Your task to perform on an android device: change the upload size in google photos Image 0: 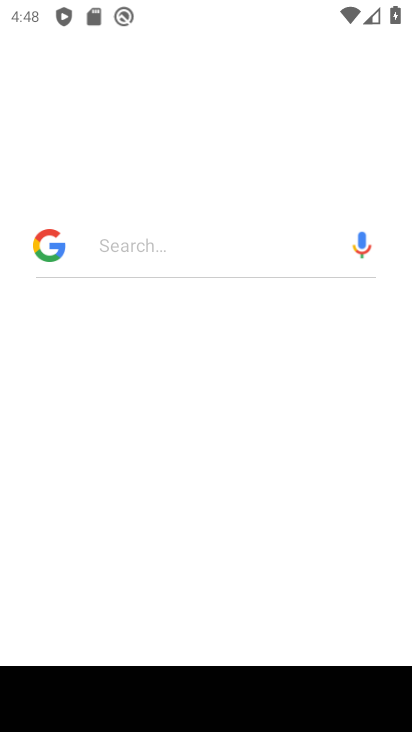
Step 0: drag from (246, 41) to (244, 567)
Your task to perform on an android device: change the upload size in google photos Image 1: 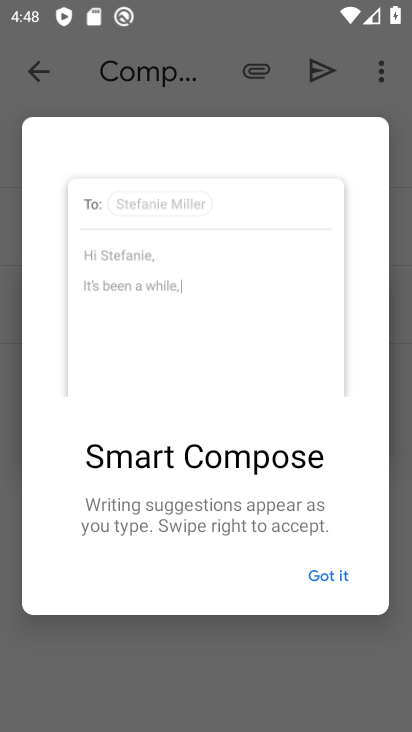
Step 1: press home button
Your task to perform on an android device: change the upload size in google photos Image 2: 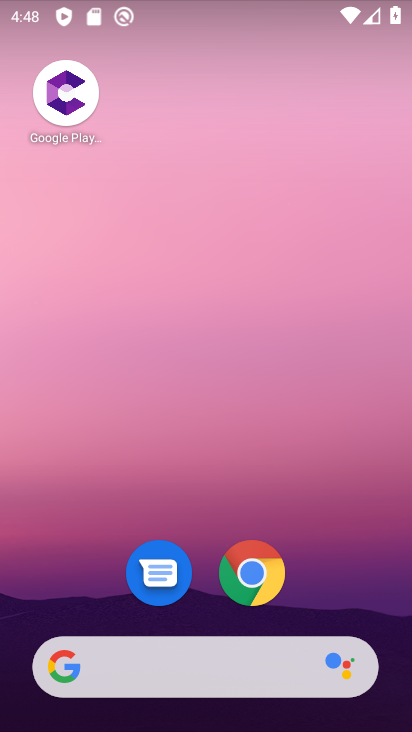
Step 2: drag from (323, 458) to (310, 96)
Your task to perform on an android device: change the upload size in google photos Image 3: 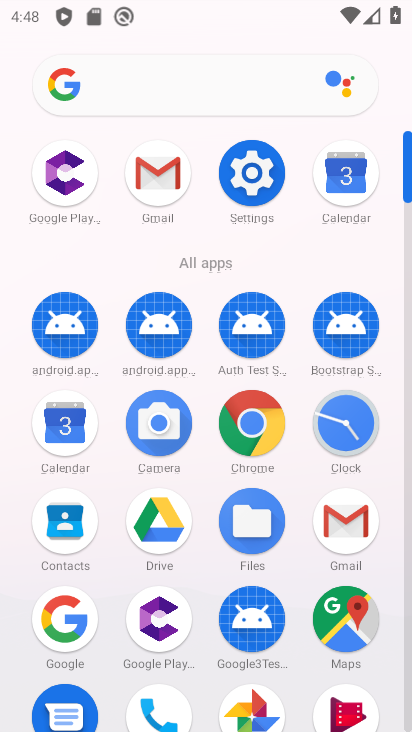
Step 3: click (252, 699)
Your task to perform on an android device: change the upload size in google photos Image 4: 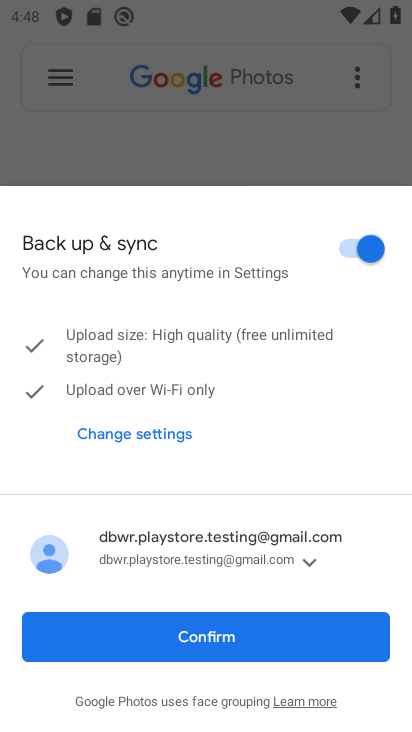
Step 4: click (280, 643)
Your task to perform on an android device: change the upload size in google photos Image 5: 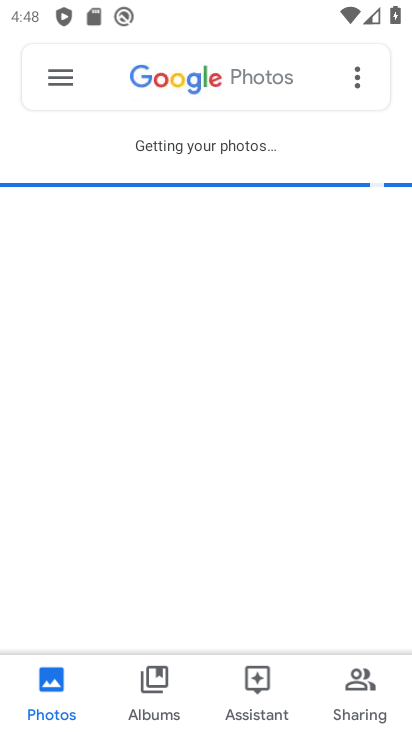
Step 5: click (56, 61)
Your task to perform on an android device: change the upload size in google photos Image 6: 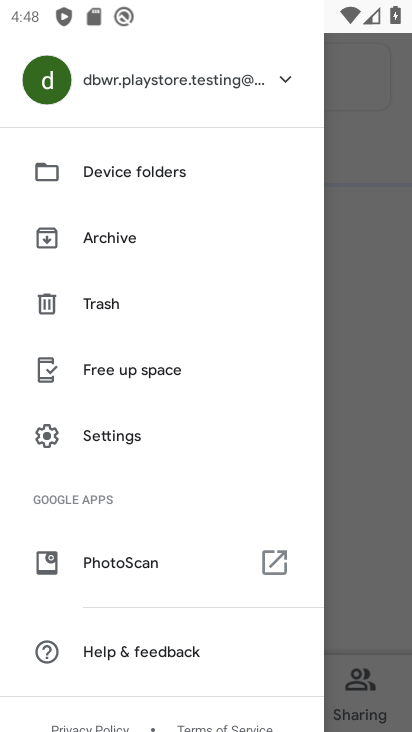
Step 6: click (112, 443)
Your task to perform on an android device: change the upload size in google photos Image 7: 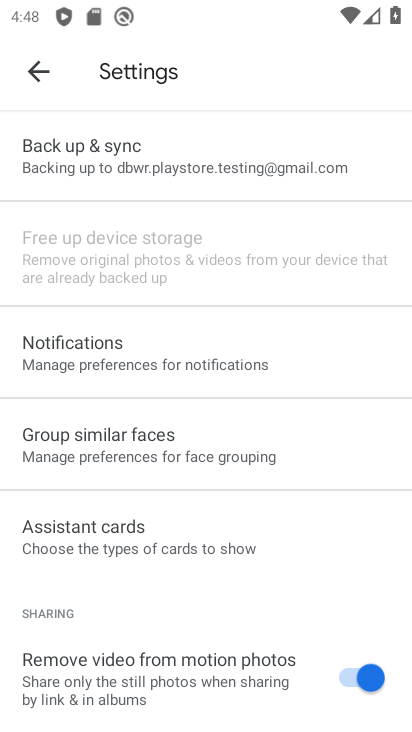
Step 7: drag from (191, 547) to (144, 678)
Your task to perform on an android device: change the upload size in google photos Image 8: 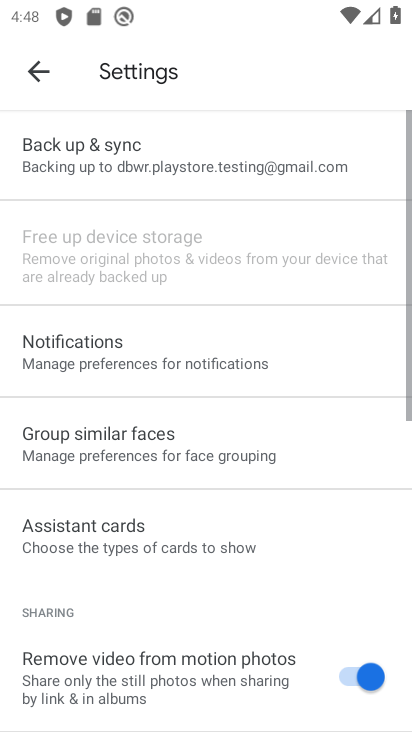
Step 8: click (139, 154)
Your task to perform on an android device: change the upload size in google photos Image 9: 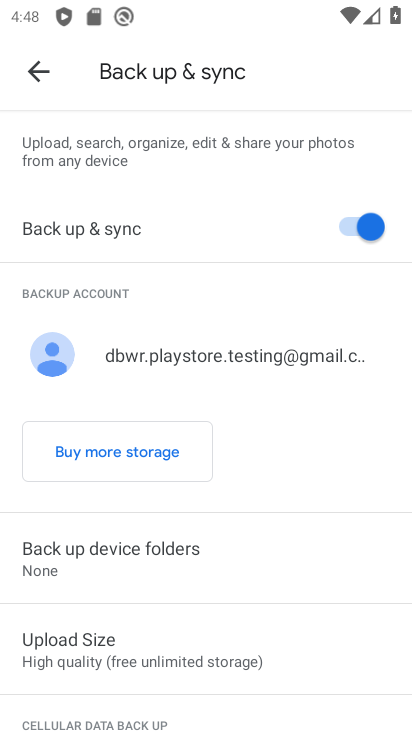
Step 9: click (186, 656)
Your task to perform on an android device: change the upload size in google photos Image 10: 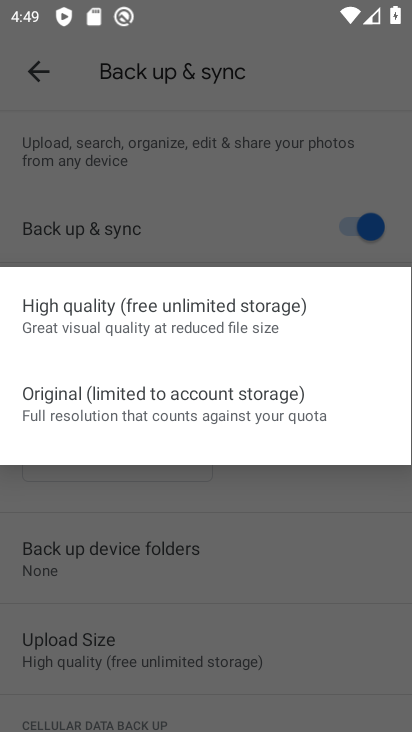
Step 10: click (119, 399)
Your task to perform on an android device: change the upload size in google photos Image 11: 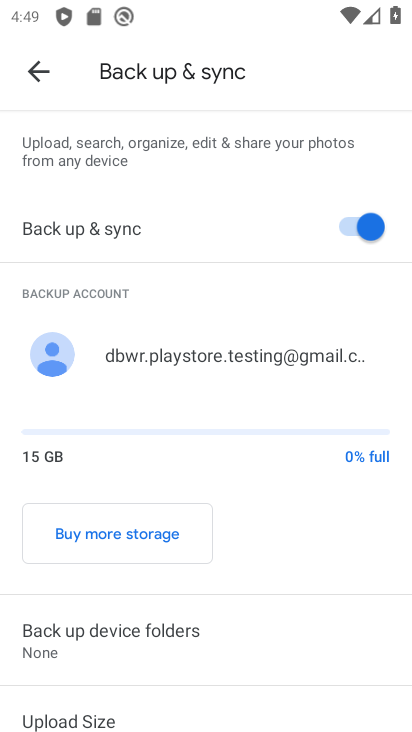
Step 11: task complete